Your task to perform on an android device: Open eBay Image 0: 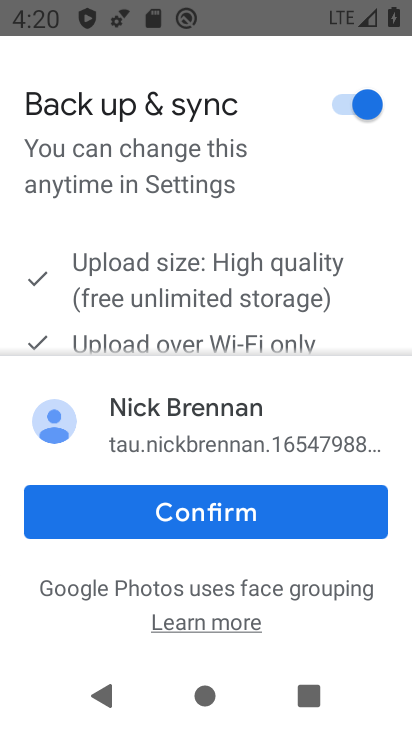
Step 0: press back button
Your task to perform on an android device: Open eBay Image 1: 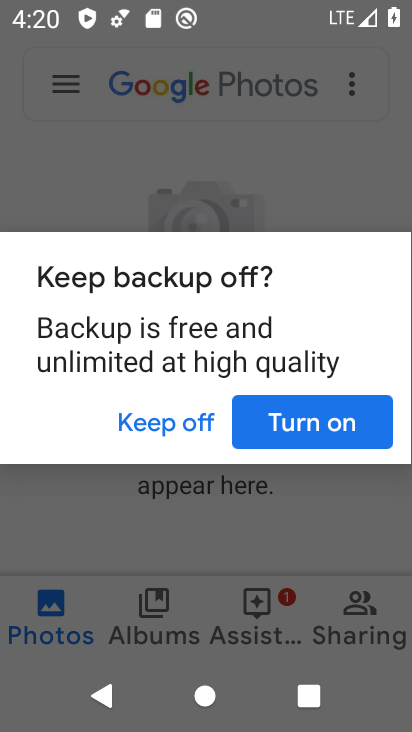
Step 1: press home button
Your task to perform on an android device: Open eBay Image 2: 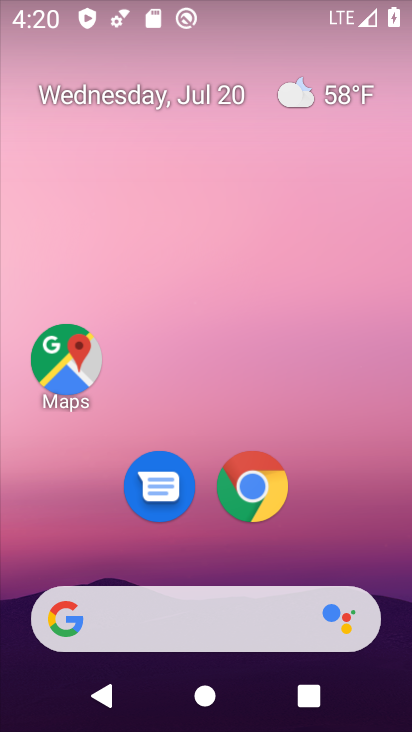
Step 2: click (254, 472)
Your task to perform on an android device: Open eBay Image 3: 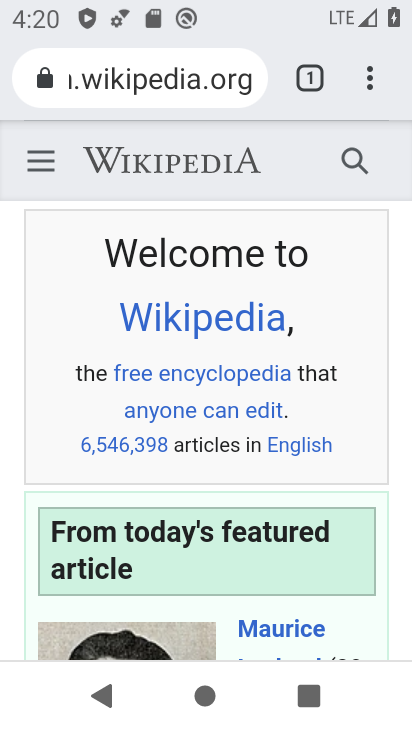
Step 3: click (310, 84)
Your task to perform on an android device: Open eBay Image 4: 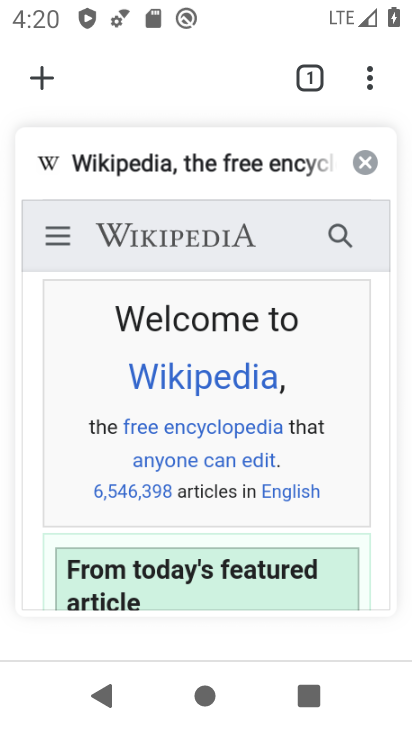
Step 4: click (42, 72)
Your task to perform on an android device: Open eBay Image 5: 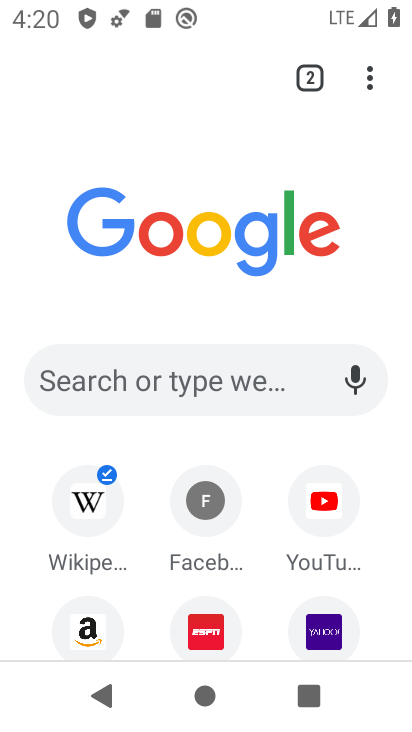
Step 5: drag from (120, 592) to (189, 205)
Your task to perform on an android device: Open eBay Image 6: 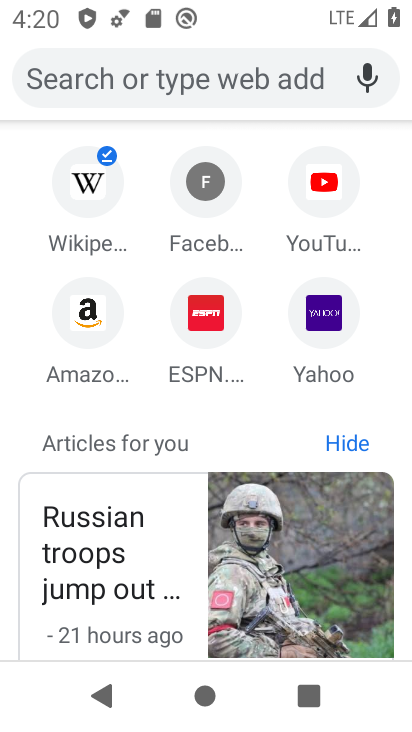
Step 6: drag from (194, 334) to (194, 520)
Your task to perform on an android device: Open eBay Image 7: 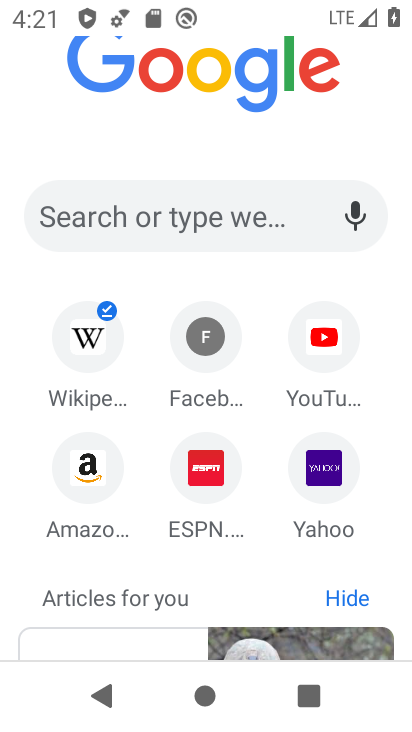
Step 7: click (172, 219)
Your task to perform on an android device: Open eBay Image 8: 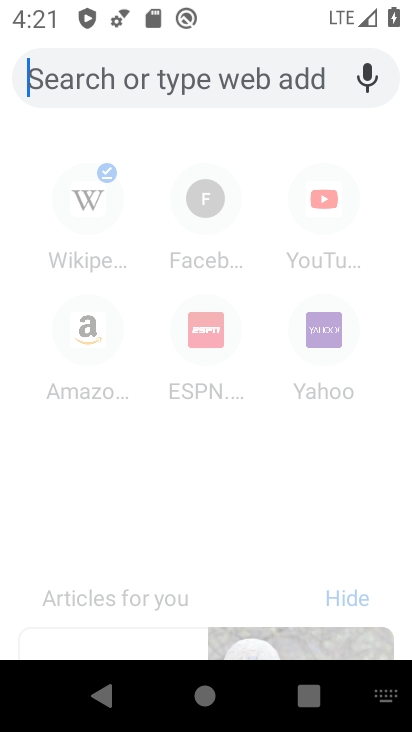
Step 8: type "ebay"
Your task to perform on an android device: Open eBay Image 9: 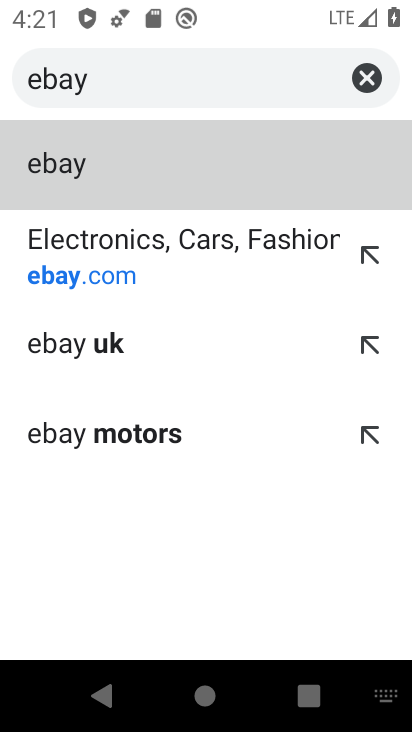
Step 9: click (93, 273)
Your task to perform on an android device: Open eBay Image 10: 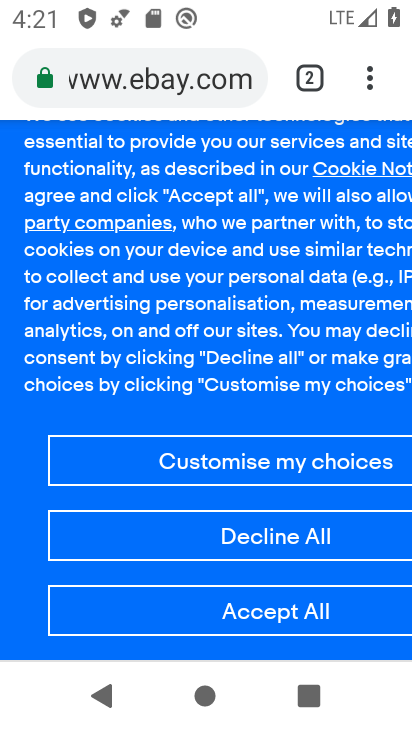
Step 10: task complete